Your task to perform on an android device: Go to settings Image 0: 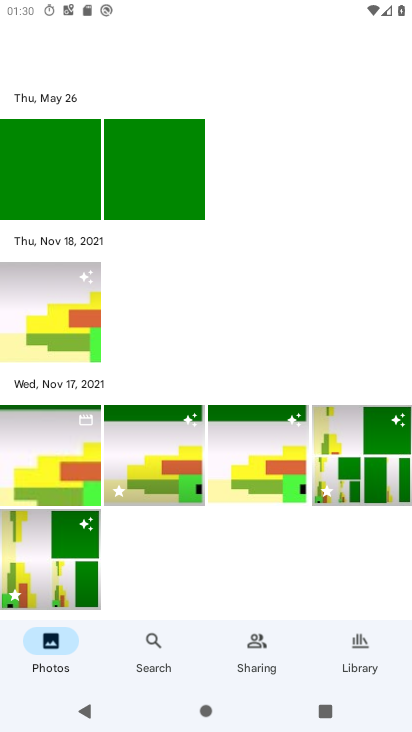
Step 0: drag from (356, 696) to (375, 119)
Your task to perform on an android device: Go to settings Image 1: 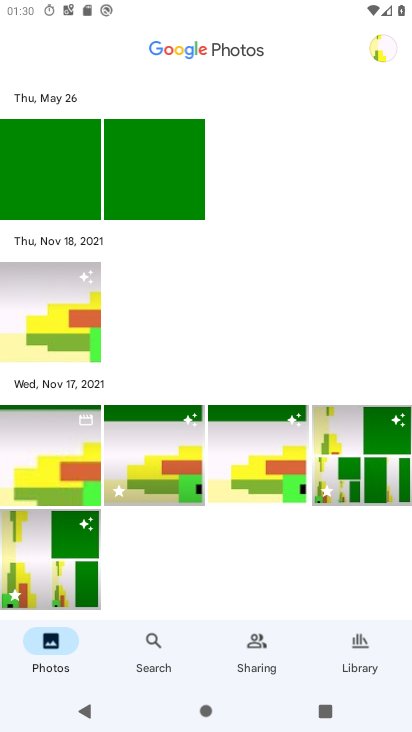
Step 1: press home button
Your task to perform on an android device: Go to settings Image 2: 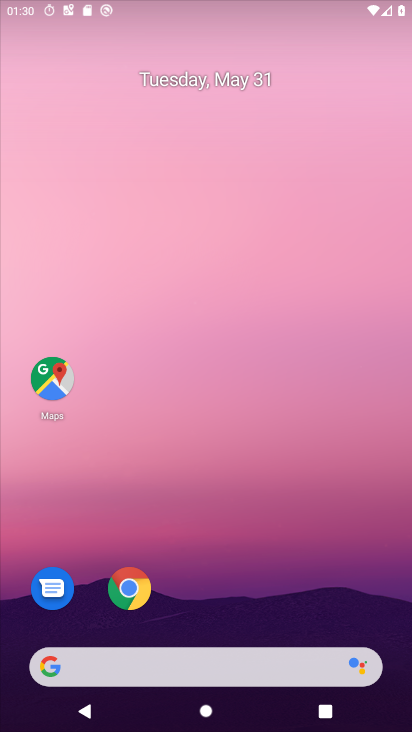
Step 2: drag from (276, 652) to (336, 202)
Your task to perform on an android device: Go to settings Image 3: 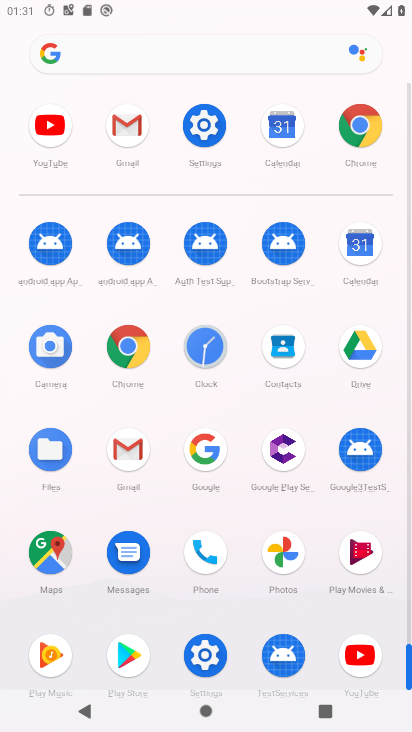
Step 3: click (219, 121)
Your task to perform on an android device: Go to settings Image 4: 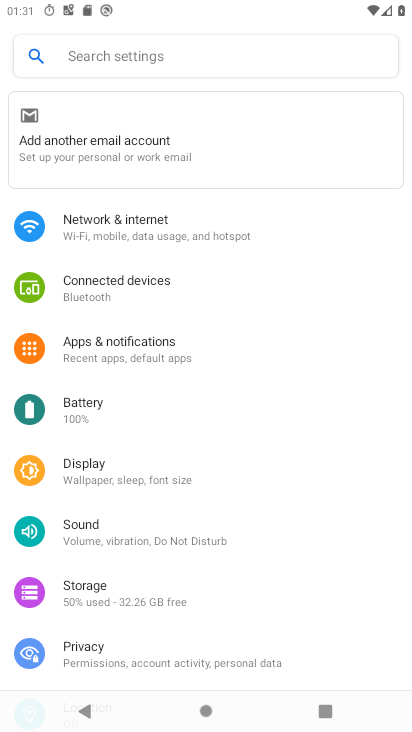
Step 4: task complete